Your task to perform on an android device: visit the assistant section in the google photos Image 0: 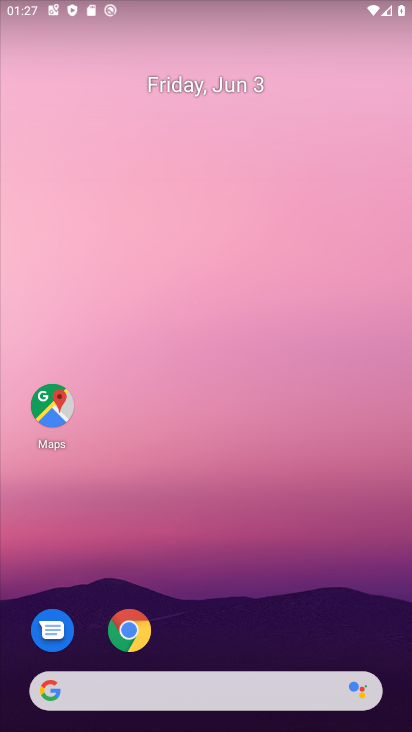
Step 0: drag from (238, 527) to (173, 165)
Your task to perform on an android device: visit the assistant section in the google photos Image 1: 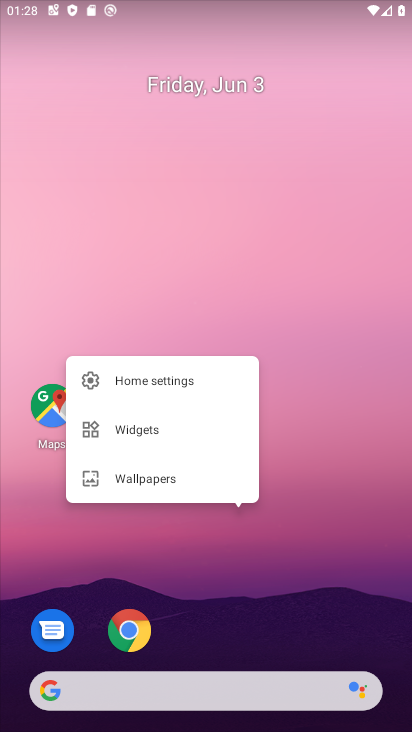
Step 1: click (285, 603)
Your task to perform on an android device: visit the assistant section in the google photos Image 2: 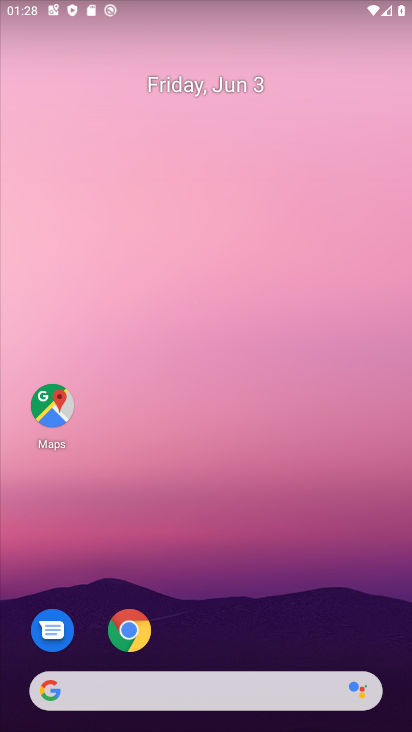
Step 2: drag from (272, 616) to (191, 72)
Your task to perform on an android device: visit the assistant section in the google photos Image 3: 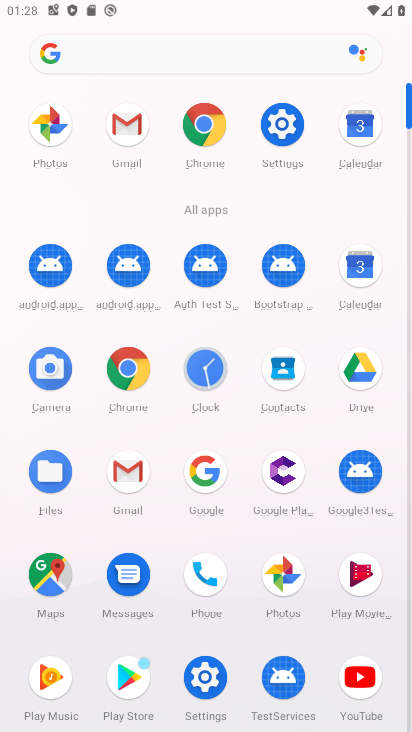
Step 3: click (53, 136)
Your task to perform on an android device: visit the assistant section in the google photos Image 4: 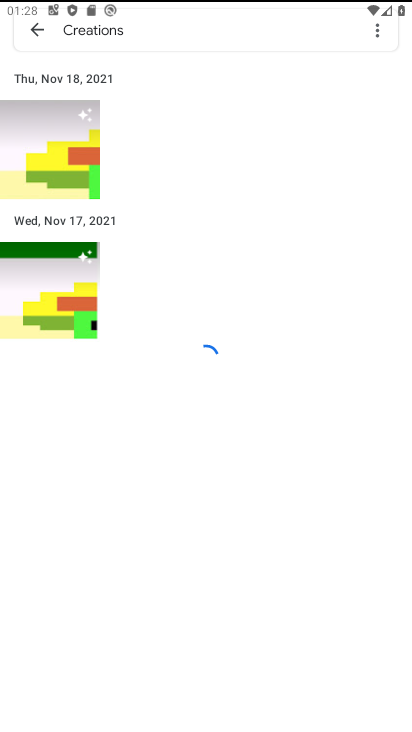
Step 4: click (38, 33)
Your task to perform on an android device: visit the assistant section in the google photos Image 5: 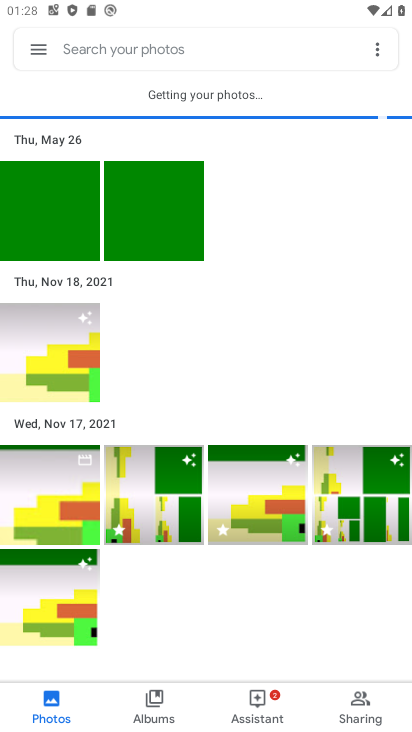
Step 5: click (277, 715)
Your task to perform on an android device: visit the assistant section in the google photos Image 6: 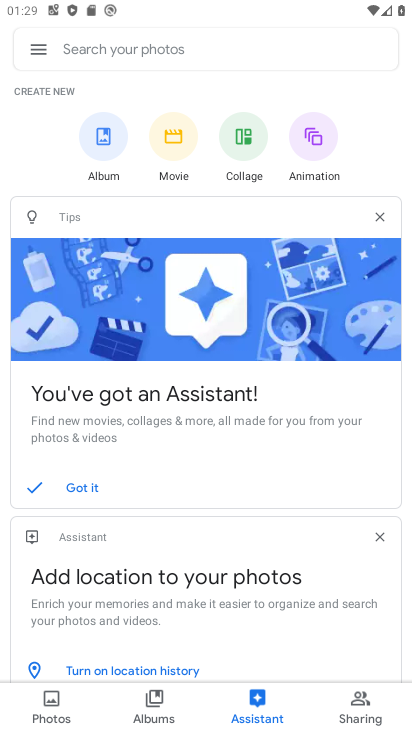
Step 6: task complete